Your task to perform on an android device: set an alarm Image 0: 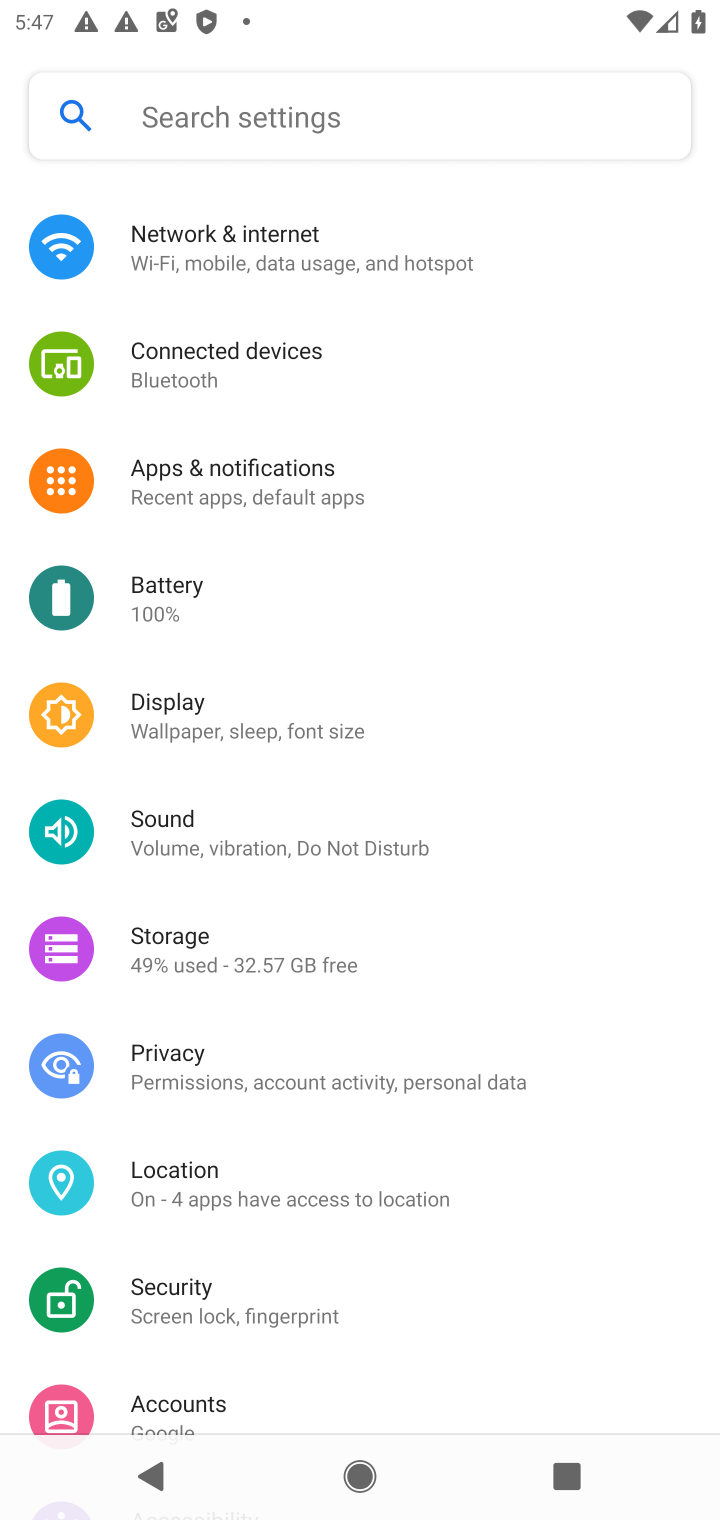
Step 0: press home button
Your task to perform on an android device: set an alarm Image 1: 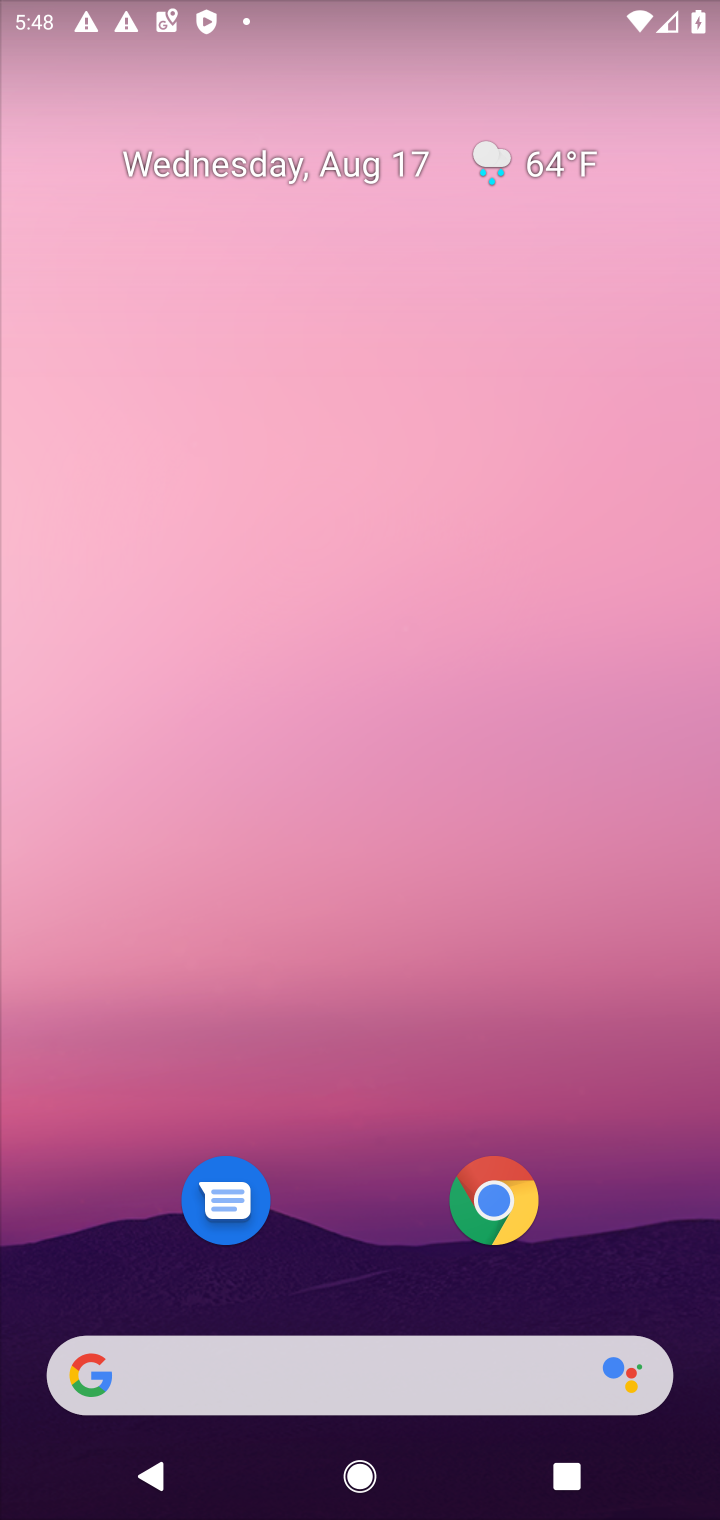
Step 1: drag from (374, 1275) to (340, 145)
Your task to perform on an android device: set an alarm Image 2: 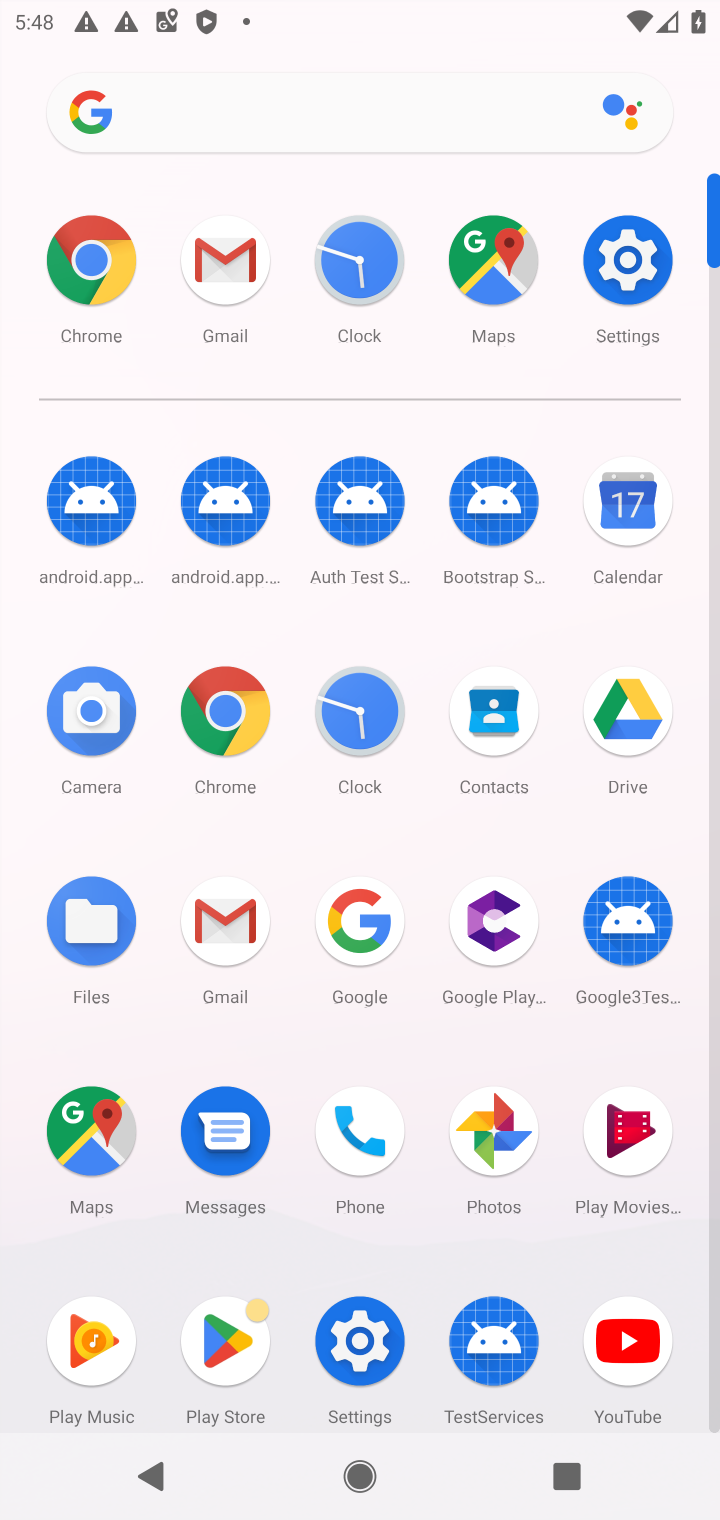
Step 2: click (365, 702)
Your task to perform on an android device: set an alarm Image 3: 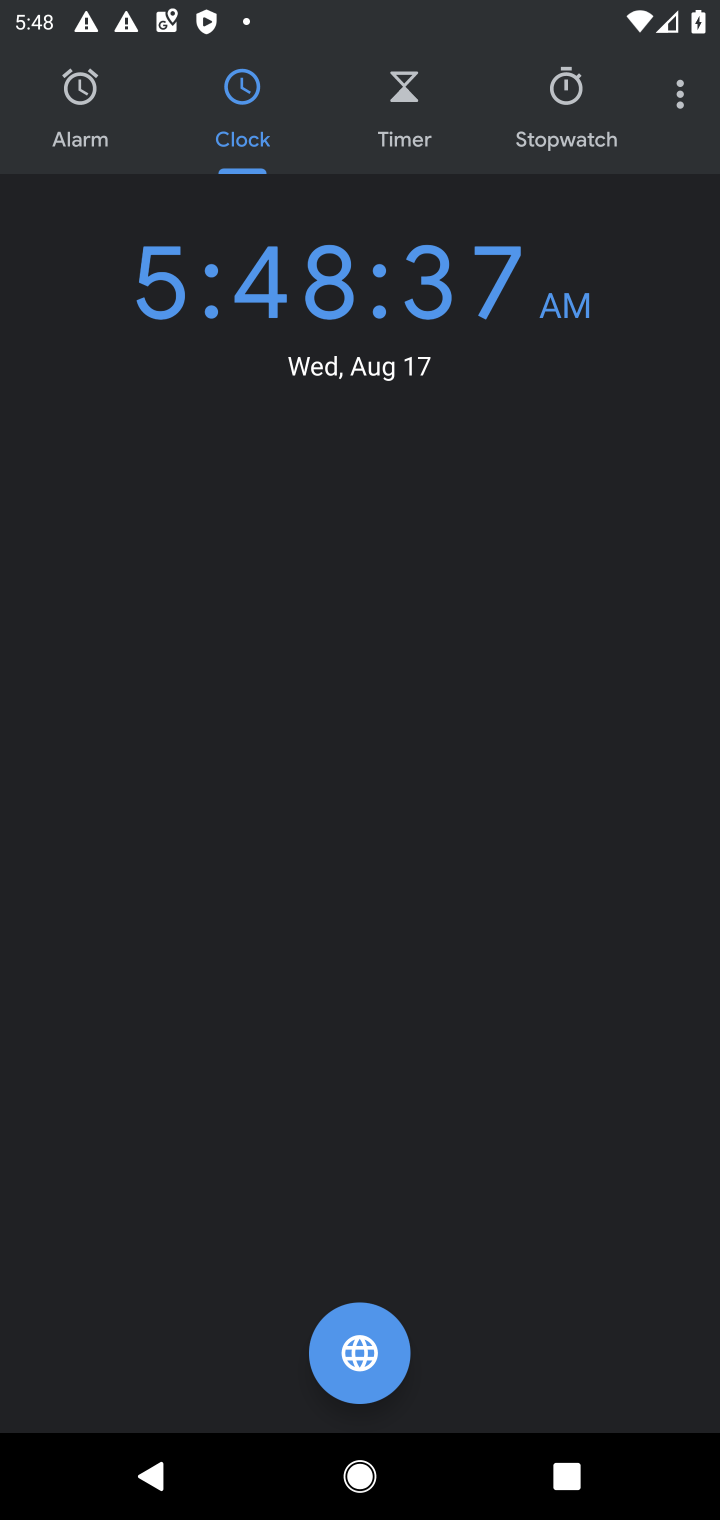
Step 3: click (76, 106)
Your task to perform on an android device: set an alarm Image 4: 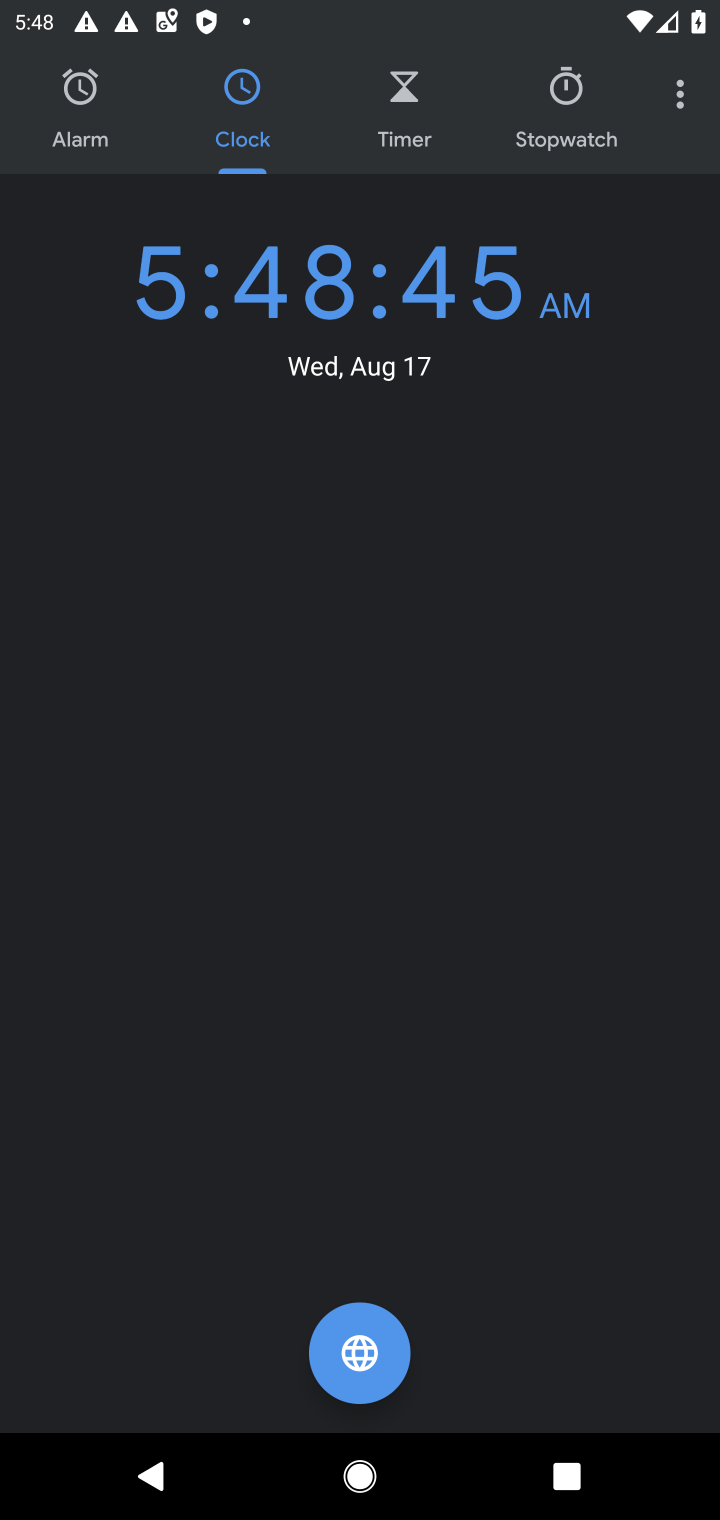
Step 4: click (63, 98)
Your task to perform on an android device: set an alarm Image 5: 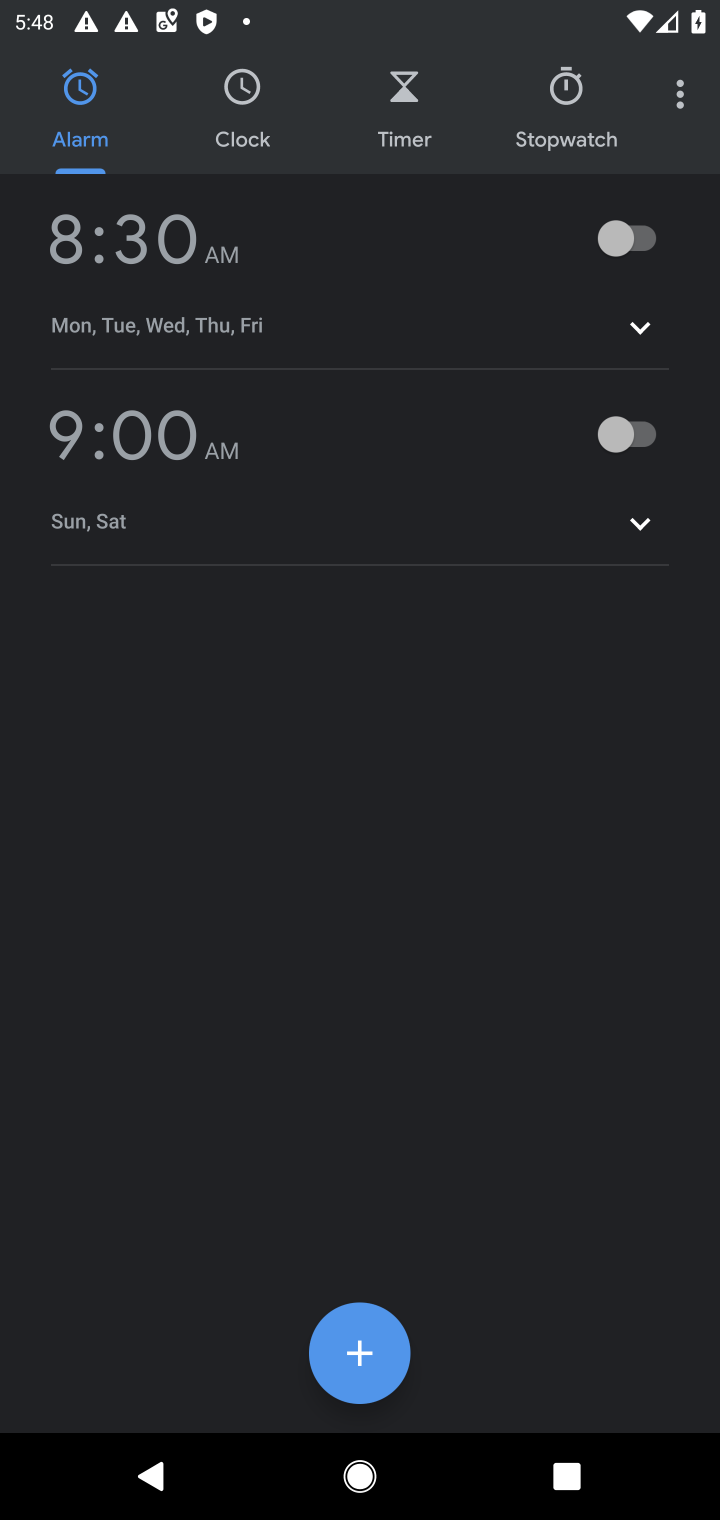
Step 5: click (364, 1360)
Your task to perform on an android device: set an alarm Image 6: 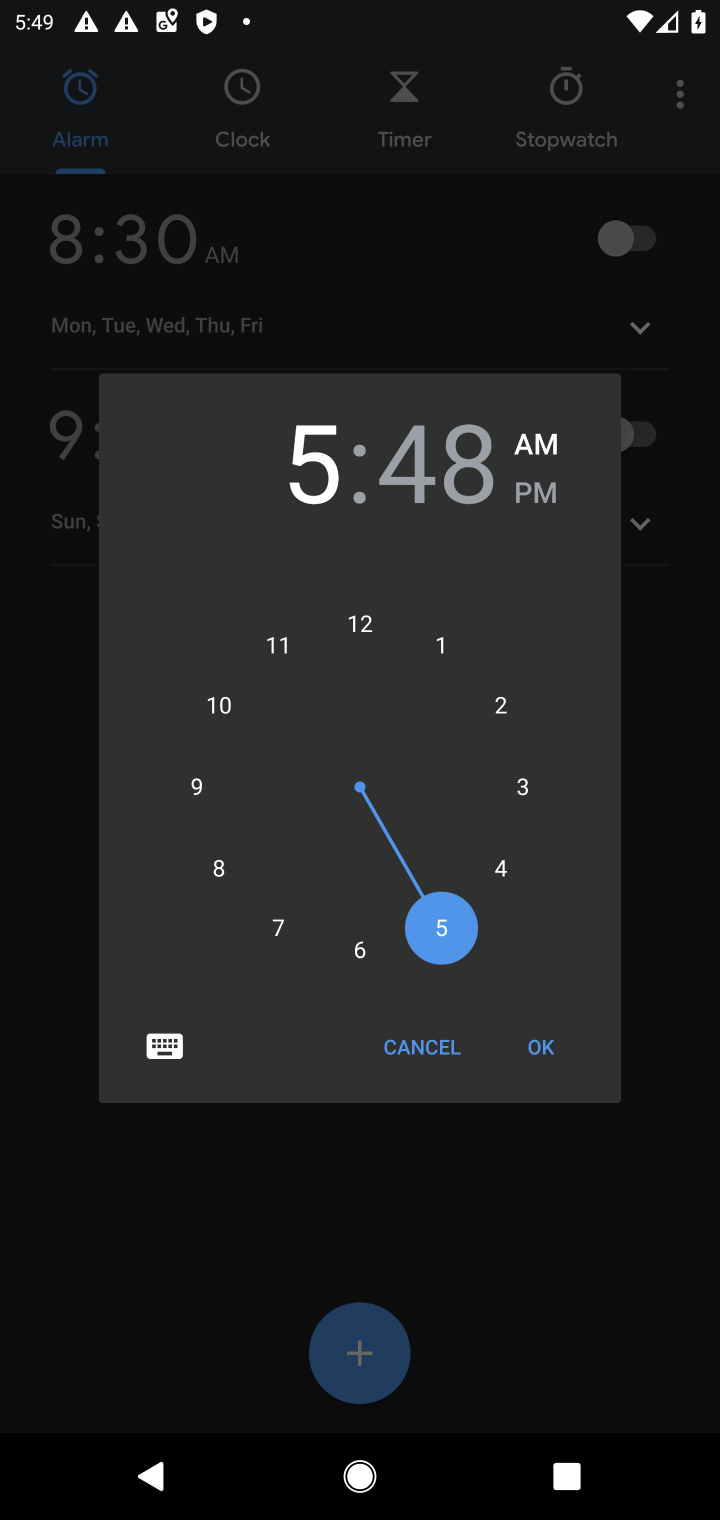
Step 6: click (361, 948)
Your task to perform on an android device: set an alarm Image 7: 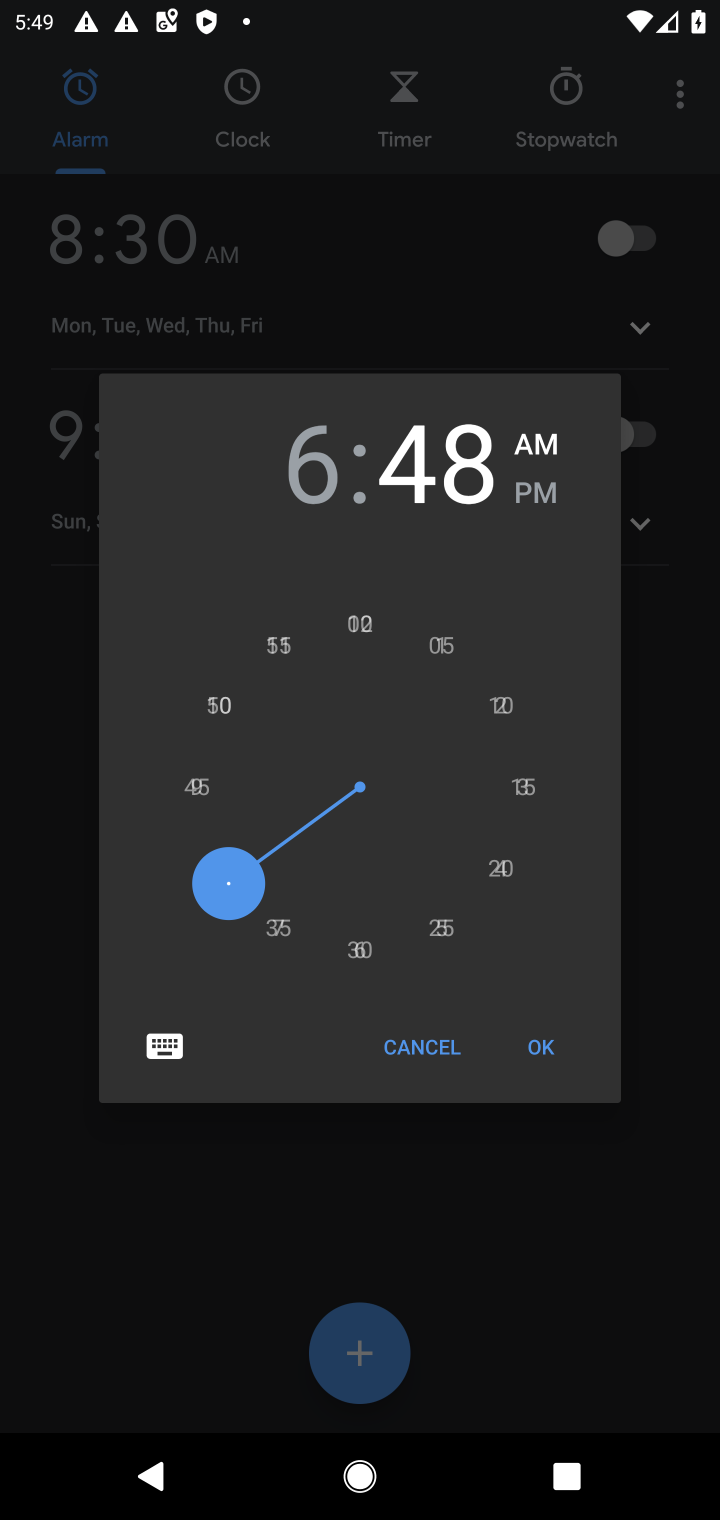
Step 7: click (536, 1043)
Your task to perform on an android device: set an alarm Image 8: 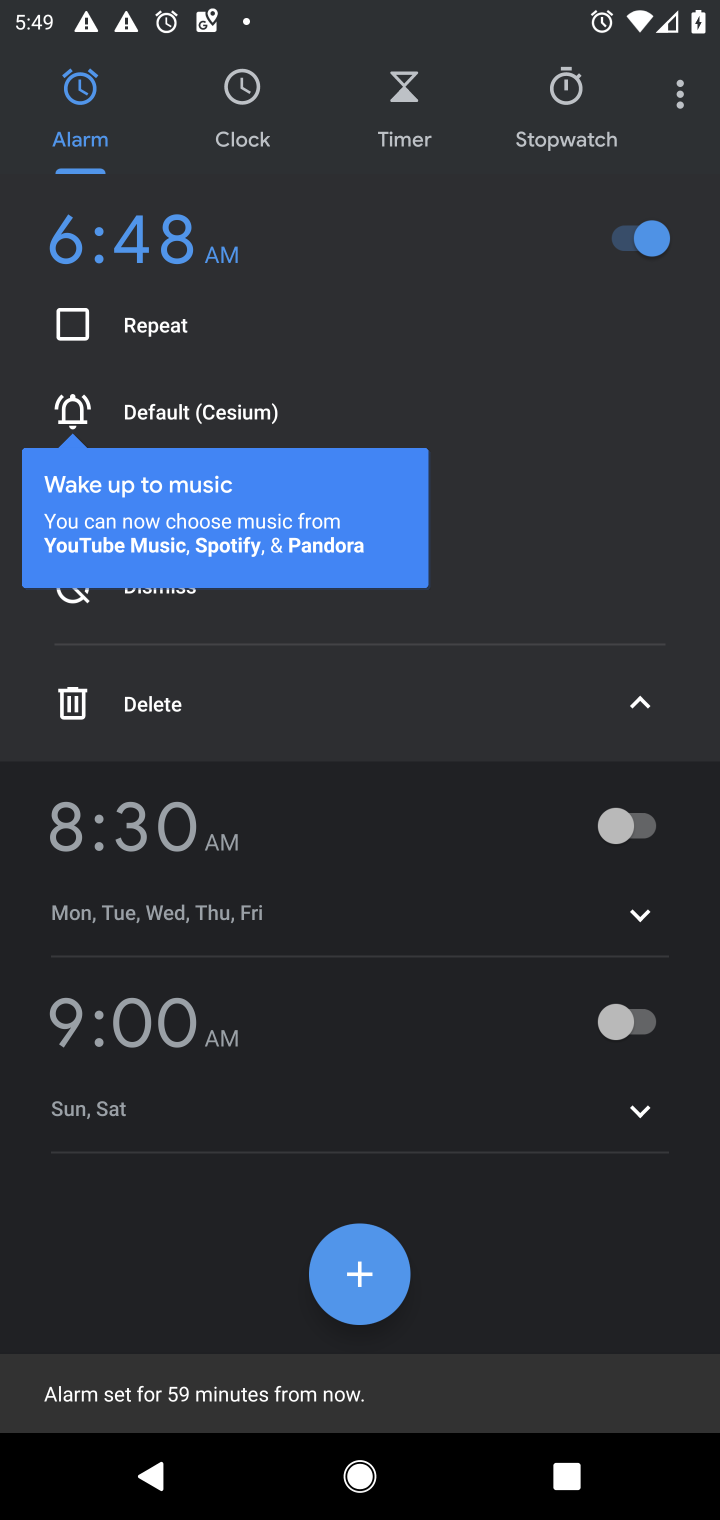
Step 8: task complete